Your task to perform on an android device: turn off translation in the chrome app Image 0: 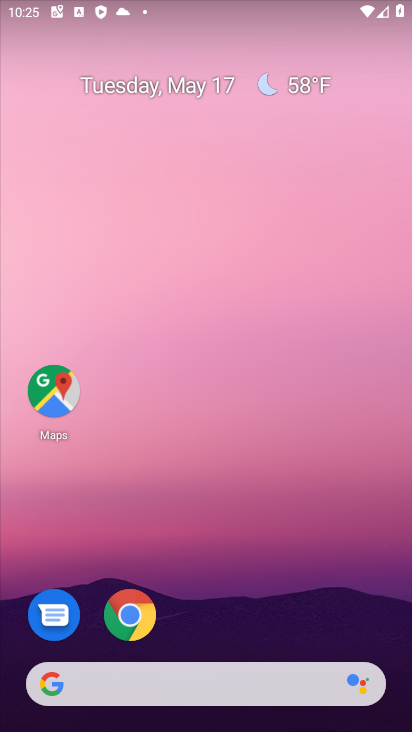
Step 0: click (128, 624)
Your task to perform on an android device: turn off translation in the chrome app Image 1: 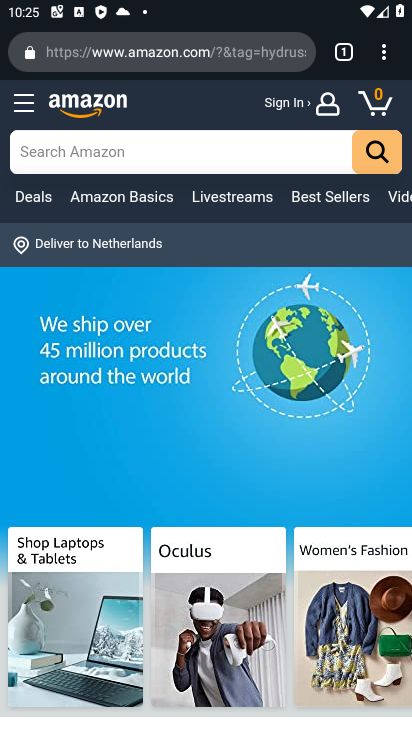
Step 1: click (383, 62)
Your task to perform on an android device: turn off translation in the chrome app Image 2: 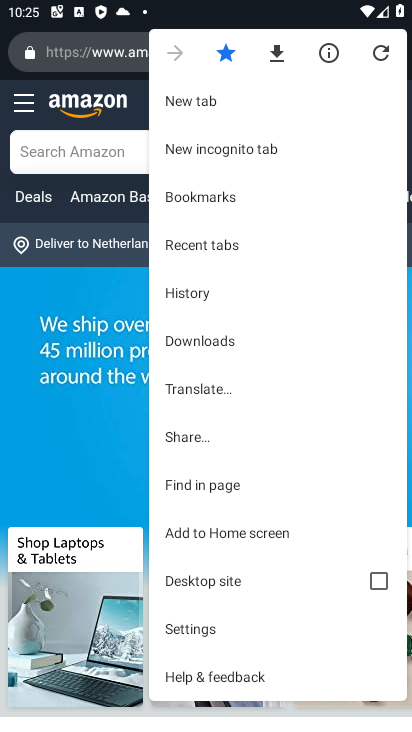
Step 2: click (195, 631)
Your task to perform on an android device: turn off translation in the chrome app Image 3: 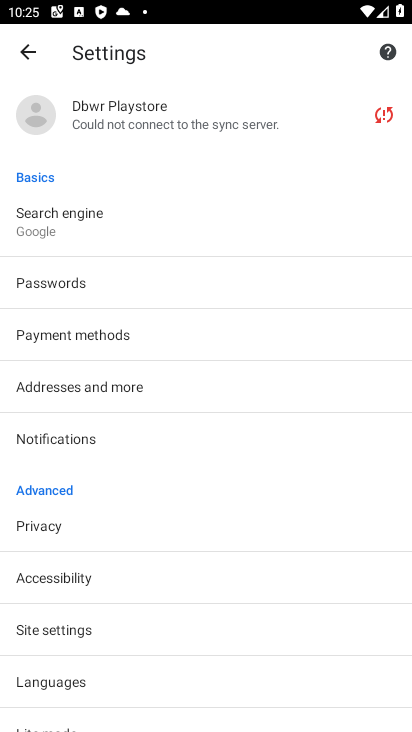
Step 3: drag from (95, 616) to (114, 356)
Your task to perform on an android device: turn off translation in the chrome app Image 4: 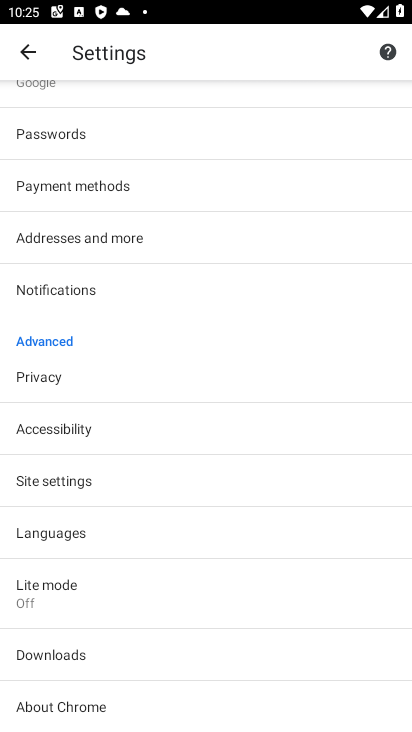
Step 4: click (54, 518)
Your task to perform on an android device: turn off translation in the chrome app Image 5: 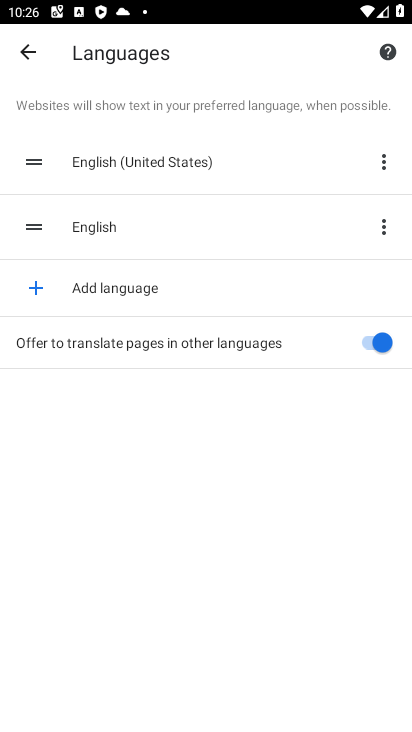
Step 5: click (375, 340)
Your task to perform on an android device: turn off translation in the chrome app Image 6: 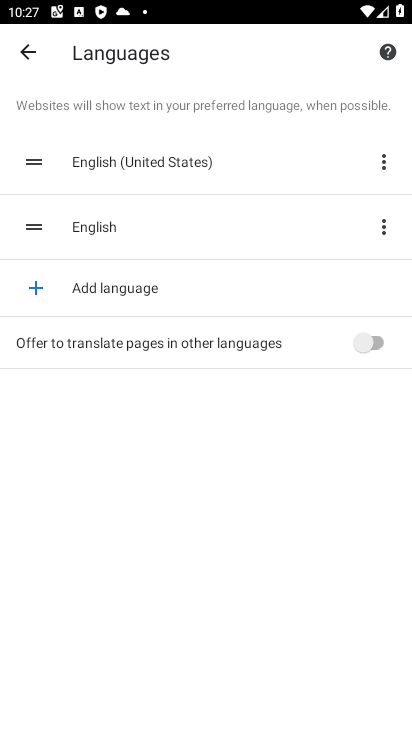
Step 6: task complete